Your task to perform on an android device: What's the weather going to be this weekend? Image 0: 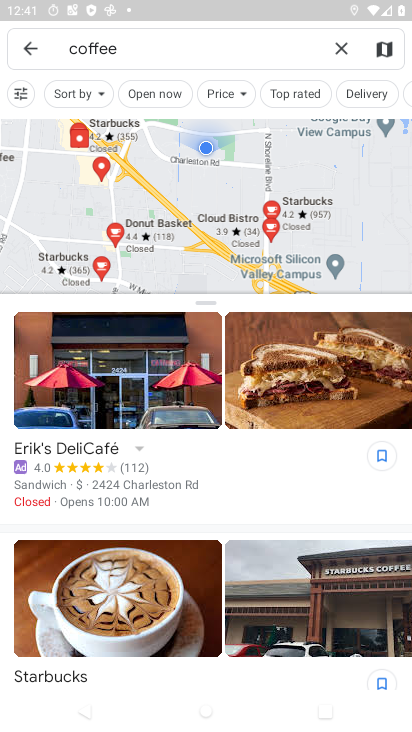
Step 0: press home button
Your task to perform on an android device: What's the weather going to be this weekend? Image 1: 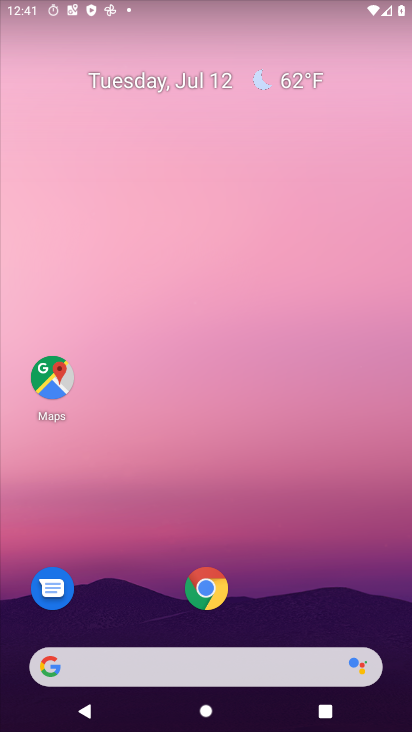
Step 1: click (206, 372)
Your task to perform on an android device: What's the weather going to be this weekend? Image 2: 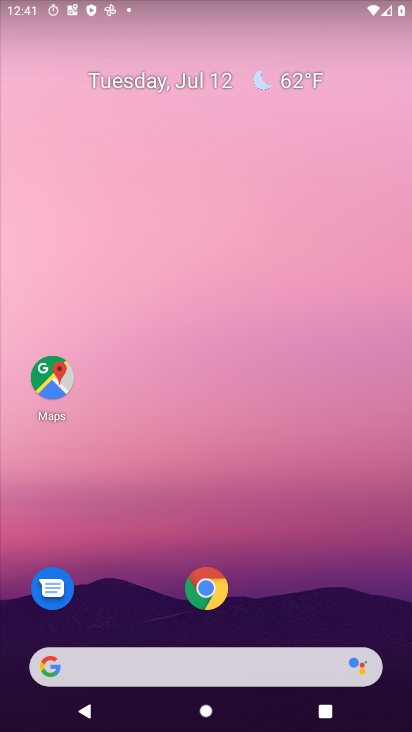
Step 2: drag from (166, 616) to (166, 159)
Your task to perform on an android device: What's the weather going to be this weekend? Image 3: 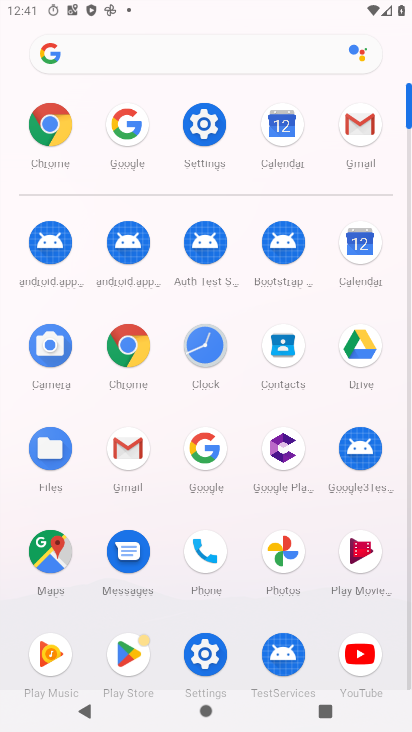
Step 3: click (342, 252)
Your task to perform on an android device: What's the weather going to be this weekend? Image 4: 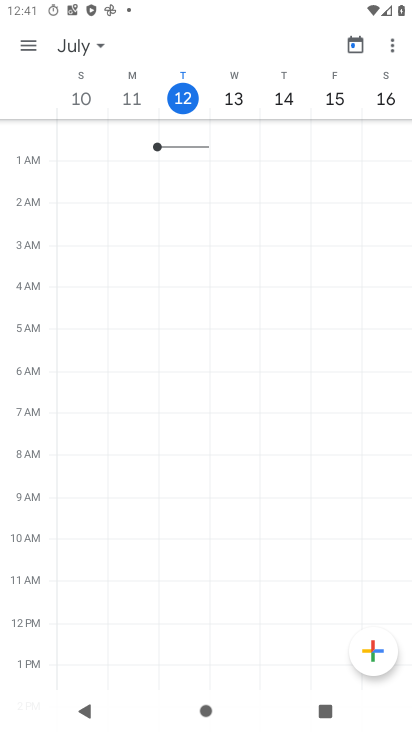
Step 4: task complete